Your task to perform on an android device: clear all cookies in the chrome app Image 0: 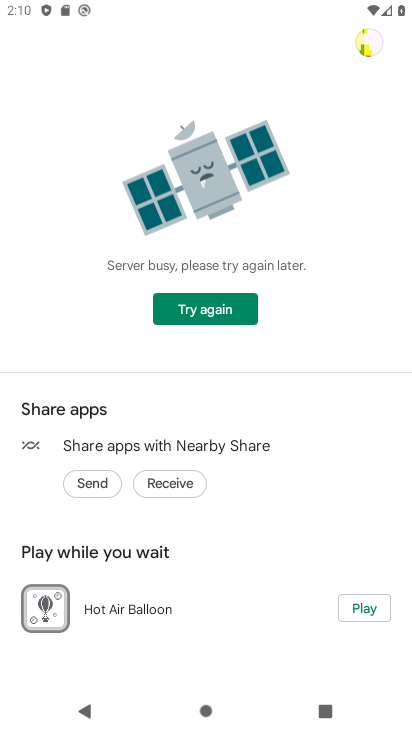
Step 0: press home button
Your task to perform on an android device: clear all cookies in the chrome app Image 1: 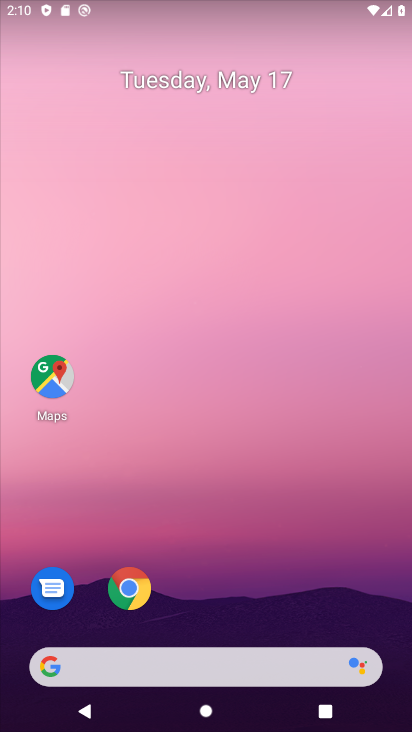
Step 1: click (133, 586)
Your task to perform on an android device: clear all cookies in the chrome app Image 2: 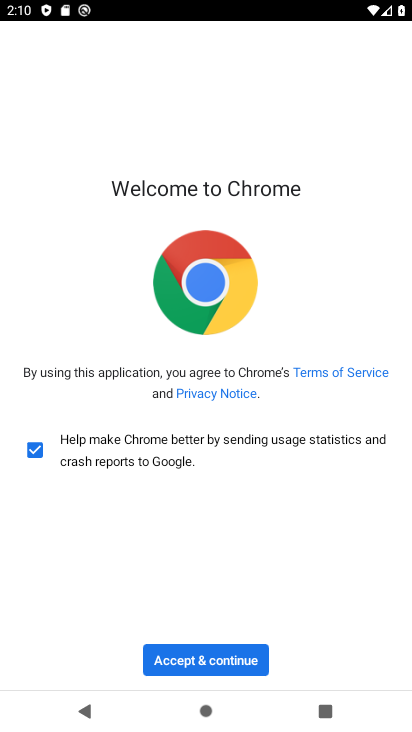
Step 2: click (236, 662)
Your task to perform on an android device: clear all cookies in the chrome app Image 3: 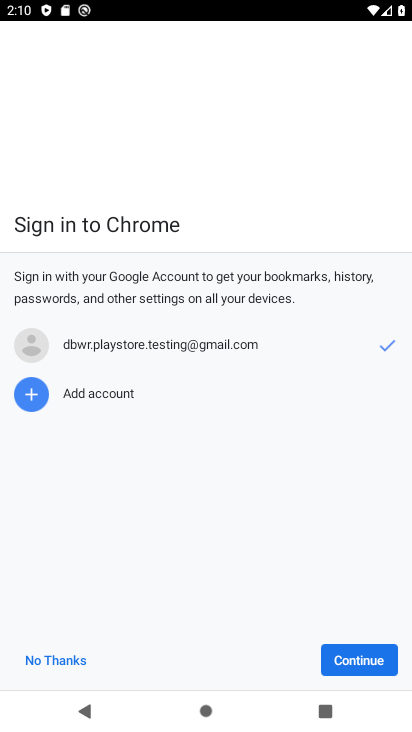
Step 3: click (379, 650)
Your task to perform on an android device: clear all cookies in the chrome app Image 4: 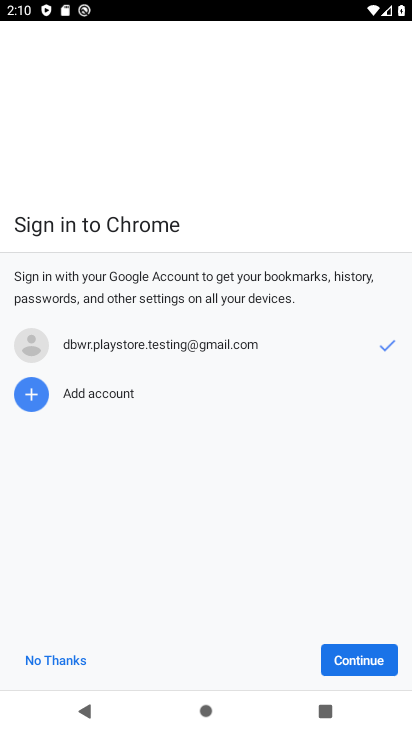
Step 4: click (379, 650)
Your task to perform on an android device: clear all cookies in the chrome app Image 5: 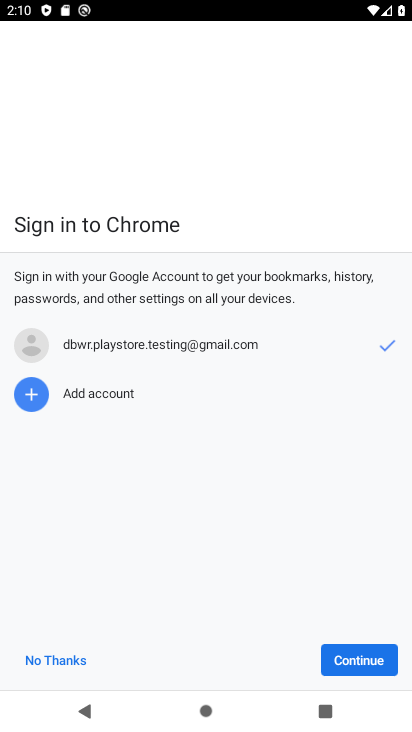
Step 5: click (379, 650)
Your task to perform on an android device: clear all cookies in the chrome app Image 6: 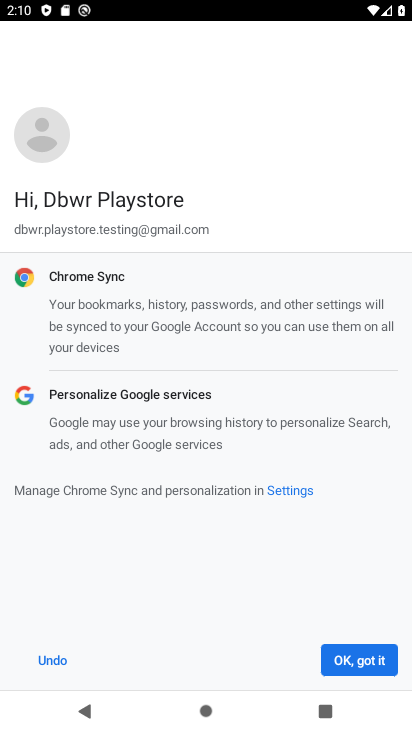
Step 6: click (379, 650)
Your task to perform on an android device: clear all cookies in the chrome app Image 7: 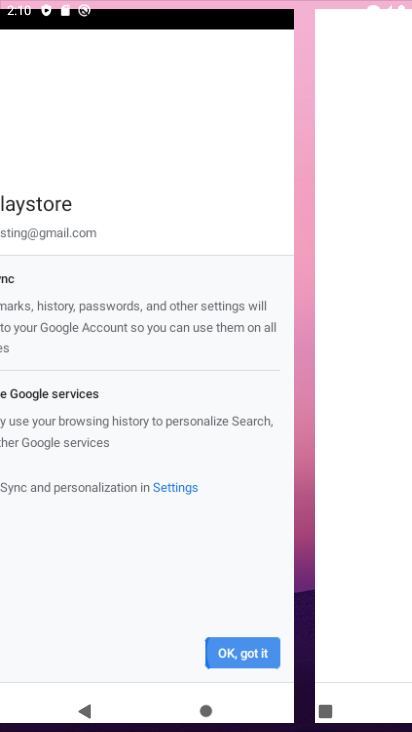
Step 7: click (379, 650)
Your task to perform on an android device: clear all cookies in the chrome app Image 8: 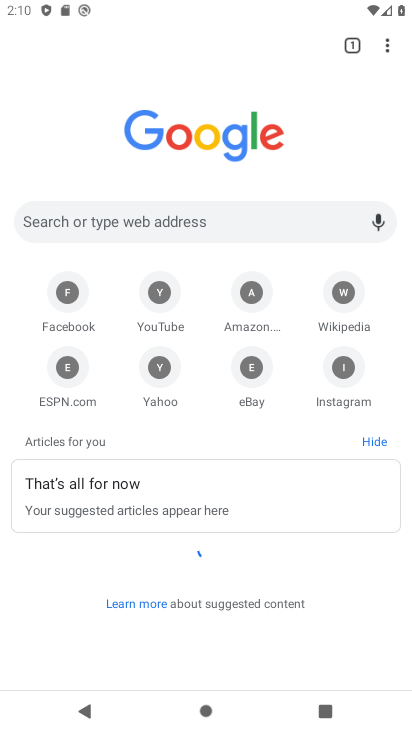
Step 8: click (381, 36)
Your task to perform on an android device: clear all cookies in the chrome app Image 9: 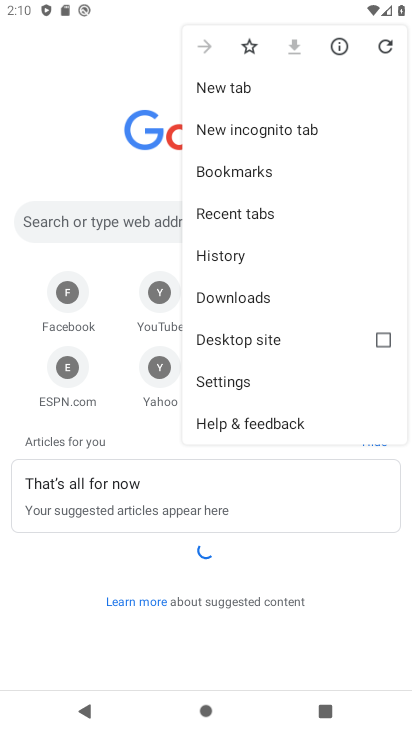
Step 9: click (255, 257)
Your task to perform on an android device: clear all cookies in the chrome app Image 10: 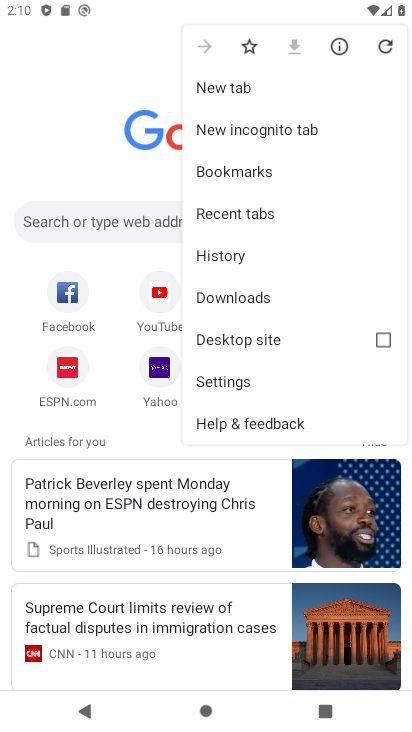
Step 10: click (244, 256)
Your task to perform on an android device: clear all cookies in the chrome app Image 11: 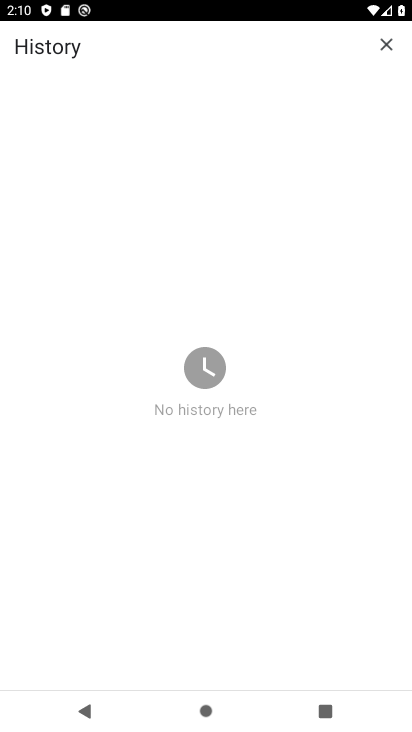
Step 11: task complete